Your task to perform on an android device: Search for Italian restaurants on Maps Image 0: 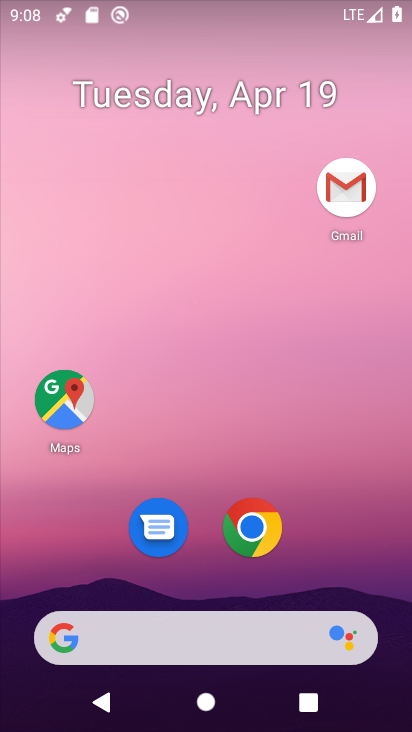
Step 0: drag from (373, 433) to (375, 95)
Your task to perform on an android device: Search for Italian restaurants on Maps Image 1: 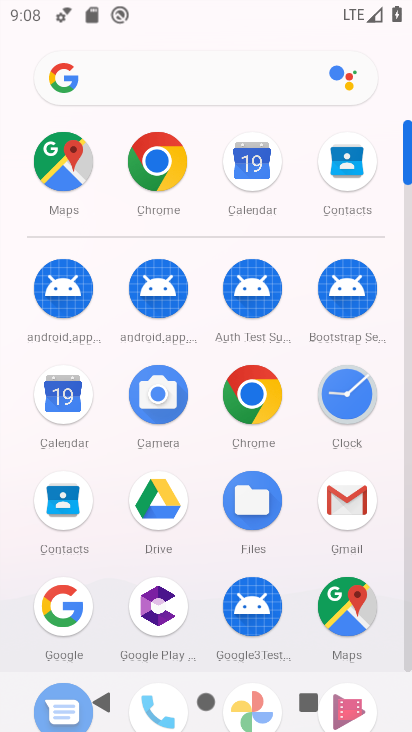
Step 1: drag from (294, 558) to (313, 204)
Your task to perform on an android device: Search for Italian restaurants on Maps Image 2: 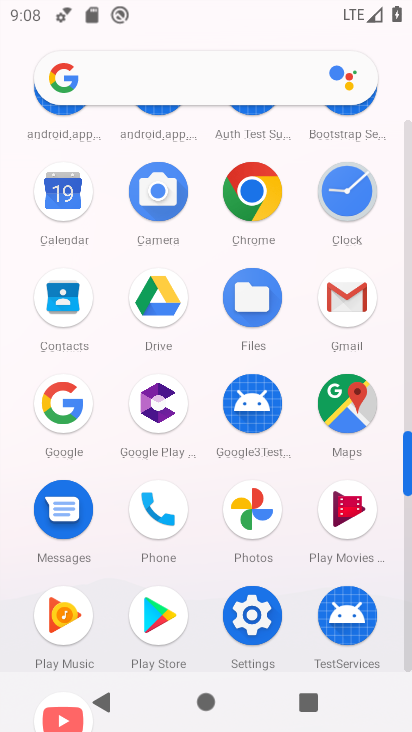
Step 2: click (341, 422)
Your task to perform on an android device: Search for Italian restaurants on Maps Image 3: 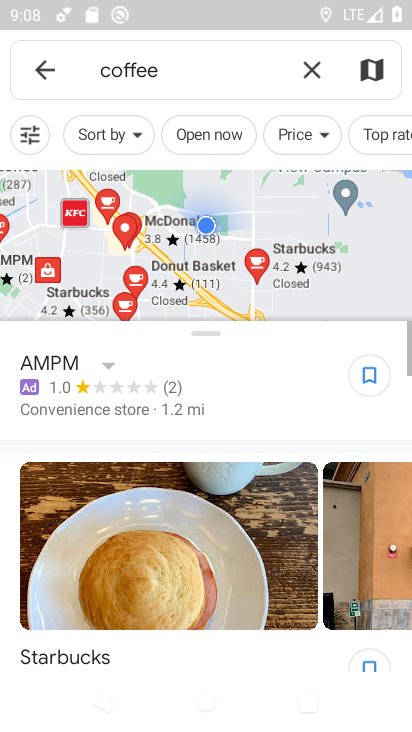
Step 3: click (314, 73)
Your task to perform on an android device: Search for Italian restaurants on Maps Image 4: 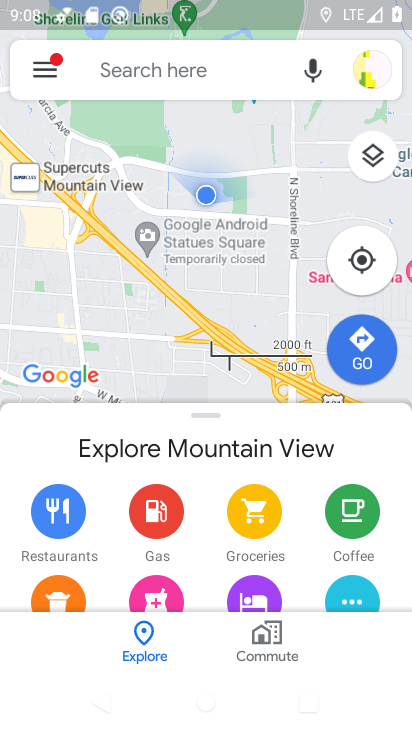
Step 4: click (196, 69)
Your task to perform on an android device: Search for Italian restaurants on Maps Image 5: 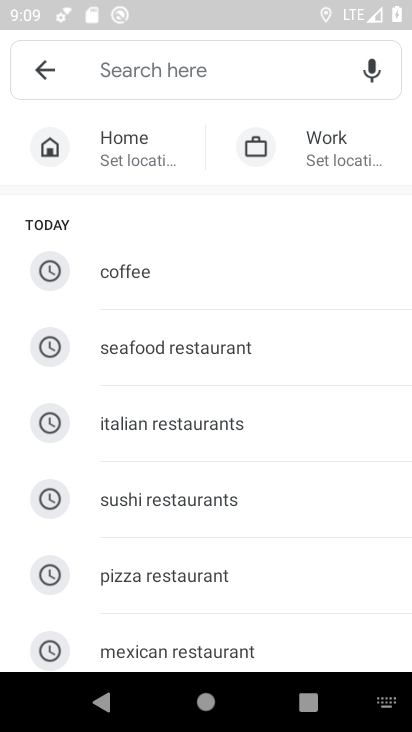
Step 5: click (272, 415)
Your task to perform on an android device: Search for Italian restaurants on Maps Image 6: 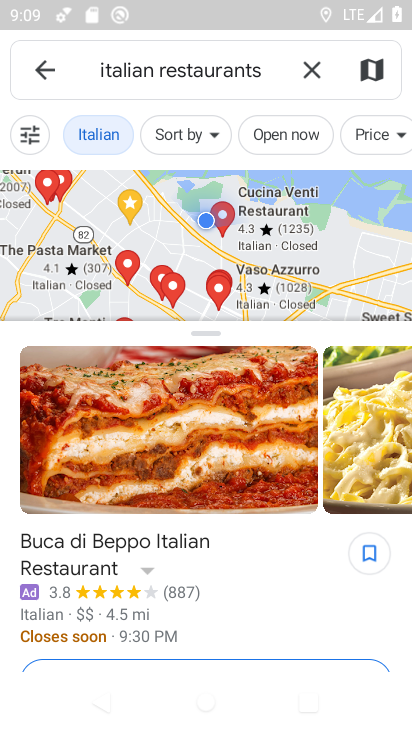
Step 6: task complete